Your task to perform on an android device: stop showing notifications on the lock screen Image 0: 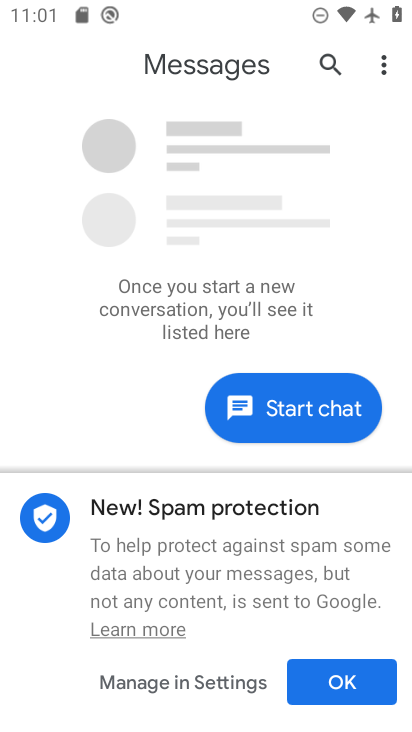
Step 0: press back button
Your task to perform on an android device: stop showing notifications on the lock screen Image 1: 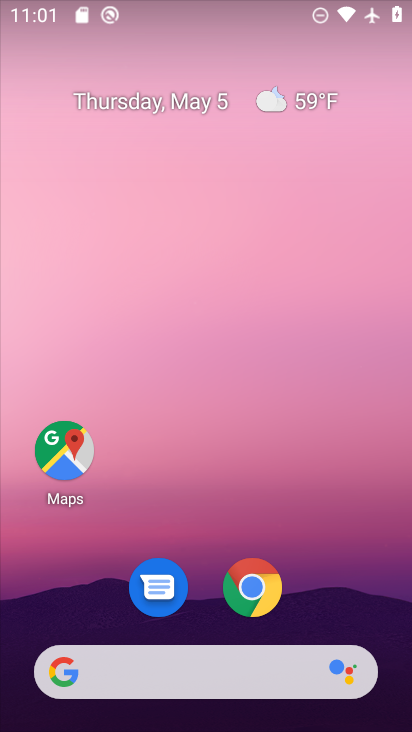
Step 1: drag from (321, 579) to (253, 56)
Your task to perform on an android device: stop showing notifications on the lock screen Image 2: 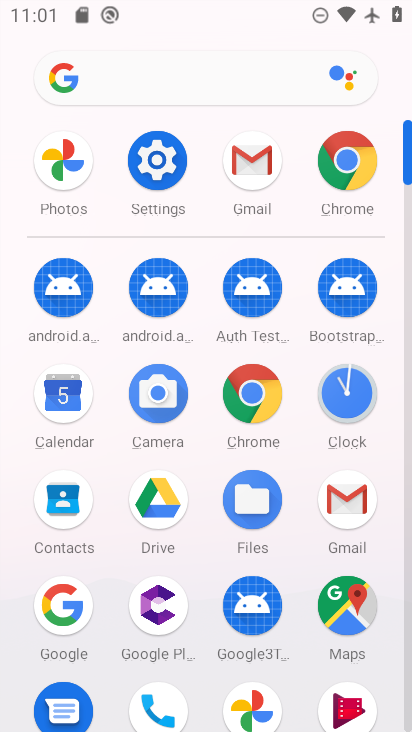
Step 2: click (156, 156)
Your task to perform on an android device: stop showing notifications on the lock screen Image 3: 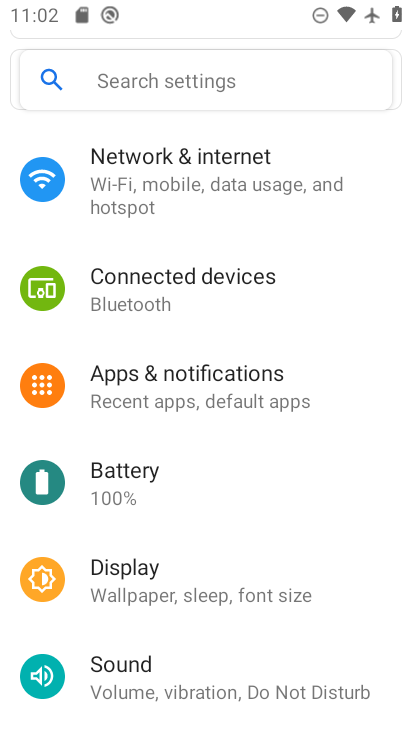
Step 3: click (196, 389)
Your task to perform on an android device: stop showing notifications on the lock screen Image 4: 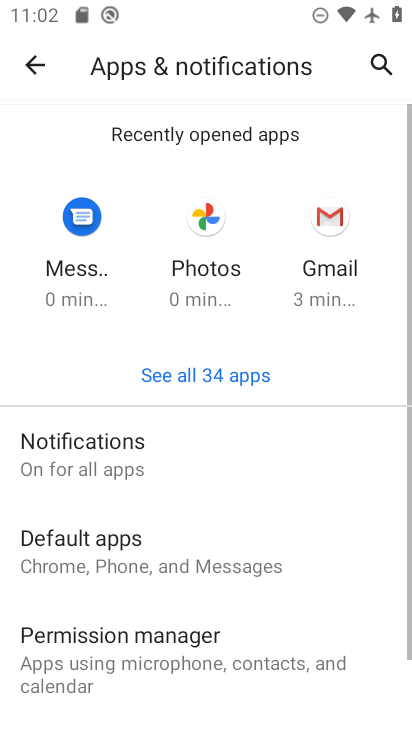
Step 4: click (173, 435)
Your task to perform on an android device: stop showing notifications on the lock screen Image 5: 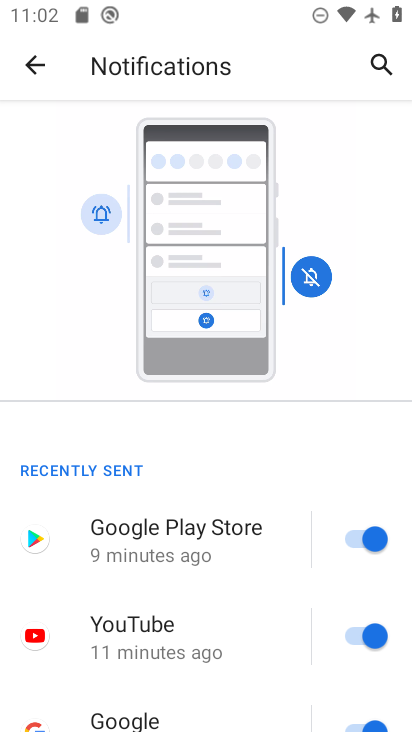
Step 5: drag from (210, 557) to (235, 113)
Your task to perform on an android device: stop showing notifications on the lock screen Image 6: 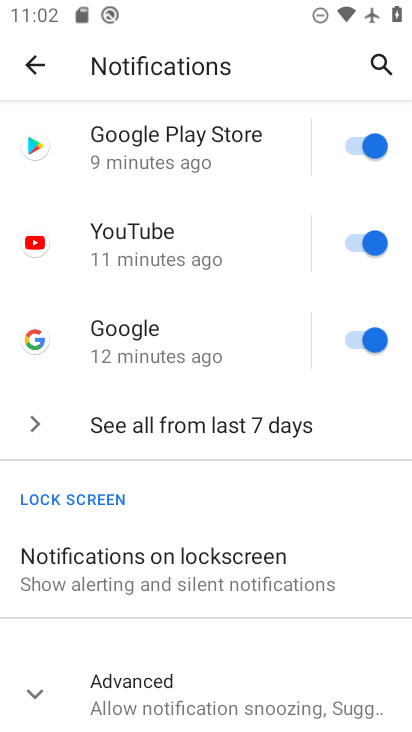
Step 6: drag from (272, 560) to (262, 135)
Your task to perform on an android device: stop showing notifications on the lock screen Image 7: 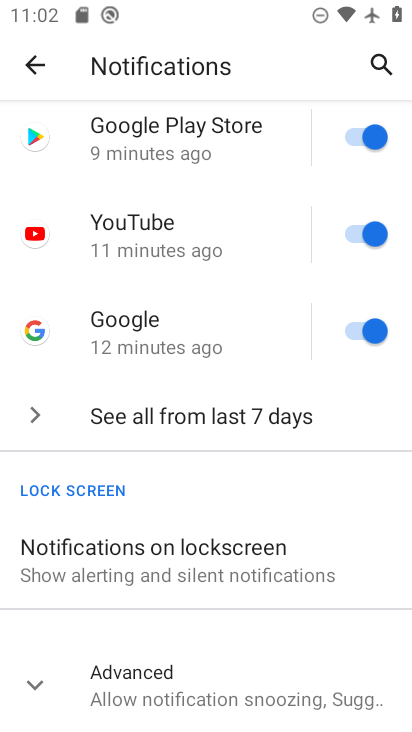
Step 7: click (53, 687)
Your task to perform on an android device: stop showing notifications on the lock screen Image 8: 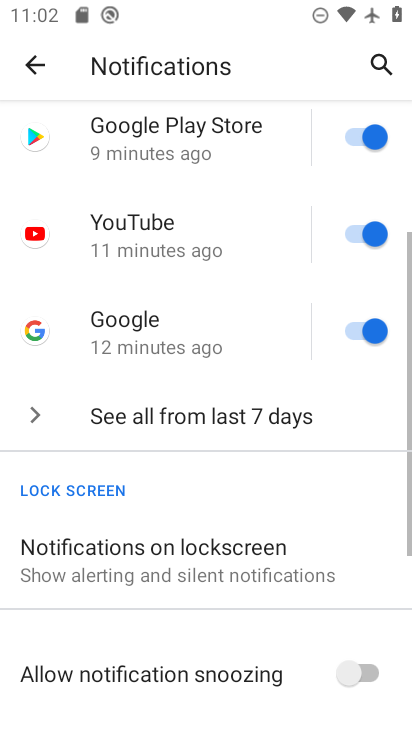
Step 8: drag from (168, 687) to (168, 226)
Your task to perform on an android device: stop showing notifications on the lock screen Image 9: 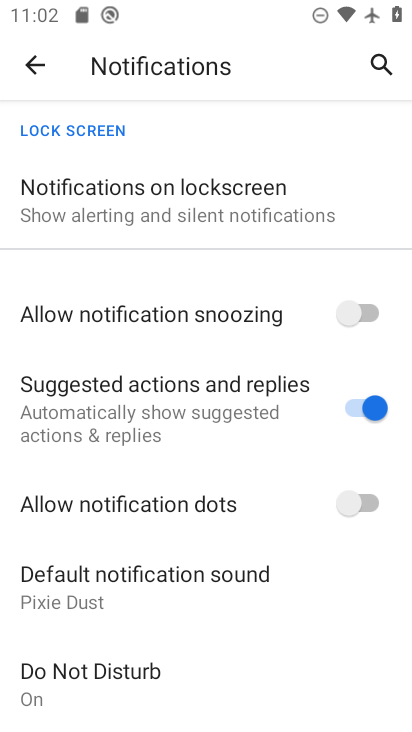
Step 9: click (204, 192)
Your task to perform on an android device: stop showing notifications on the lock screen Image 10: 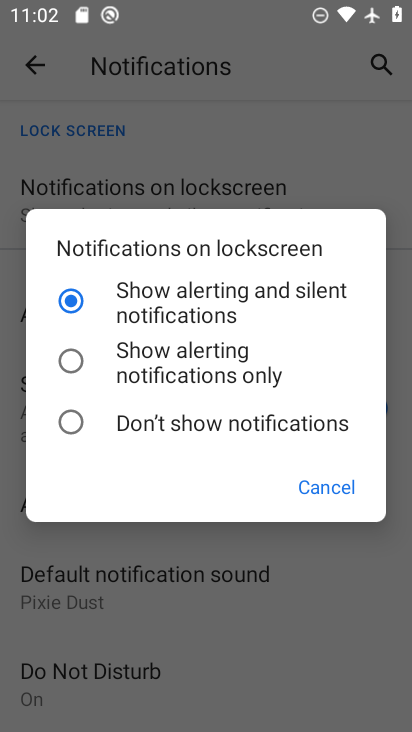
Step 10: click (202, 425)
Your task to perform on an android device: stop showing notifications on the lock screen Image 11: 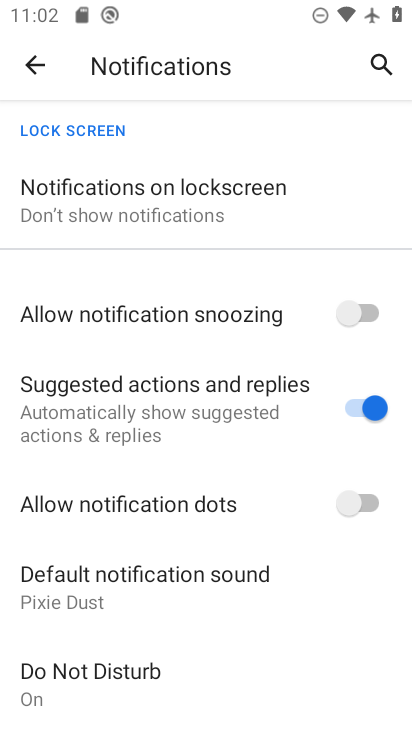
Step 11: task complete